Your task to perform on an android device: Open sound settings Image 0: 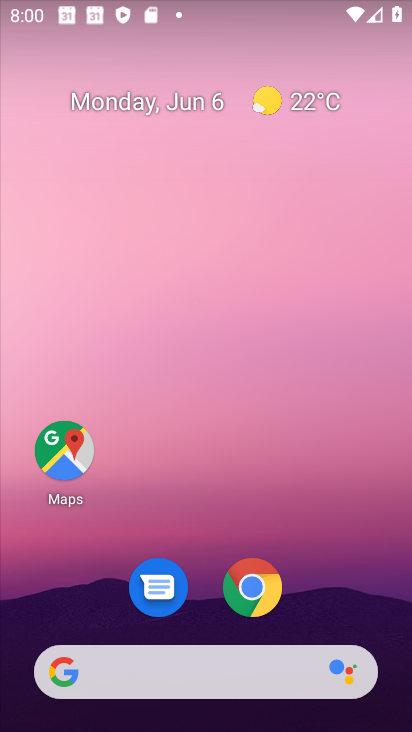
Step 0: click (258, 594)
Your task to perform on an android device: Open sound settings Image 1: 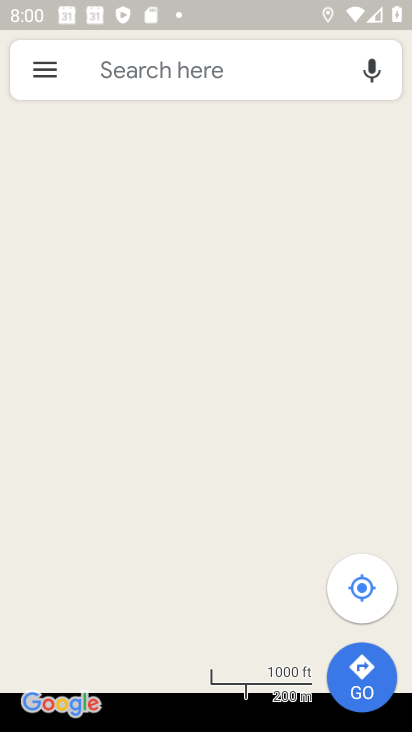
Step 1: press home button
Your task to perform on an android device: Open sound settings Image 2: 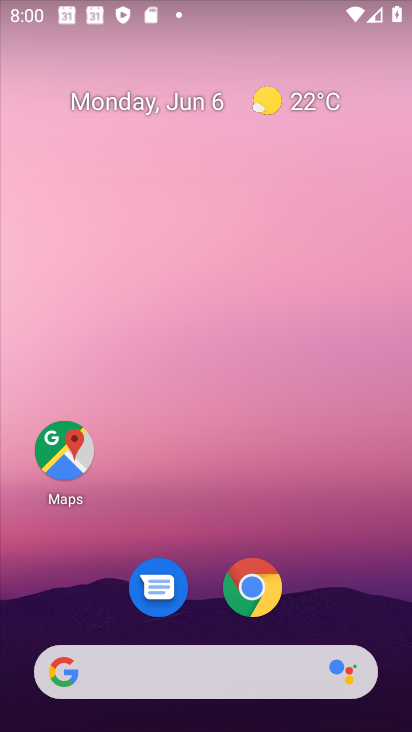
Step 2: drag from (244, 644) to (212, 325)
Your task to perform on an android device: Open sound settings Image 3: 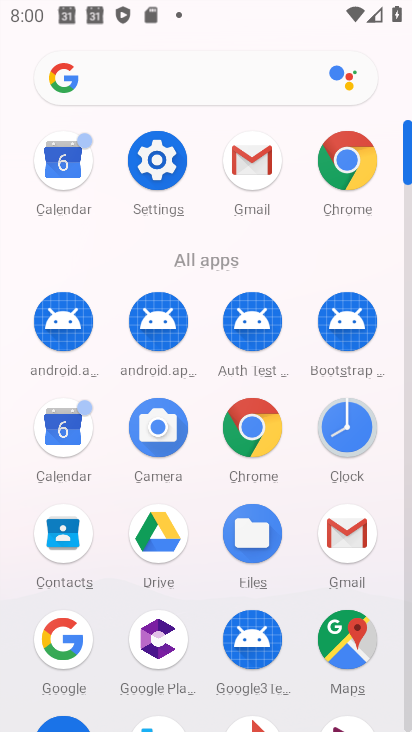
Step 3: click (162, 158)
Your task to perform on an android device: Open sound settings Image 4: 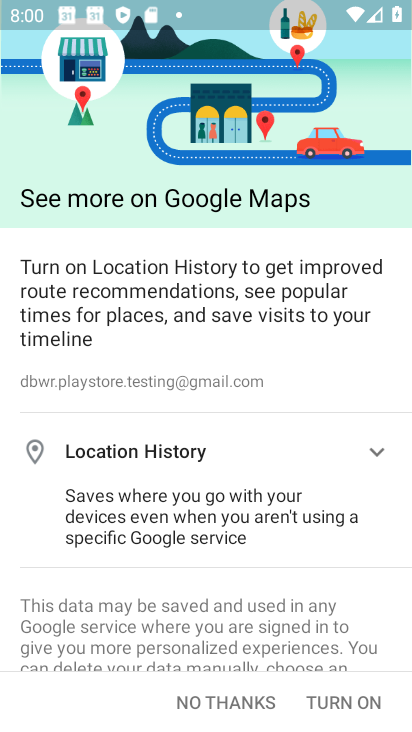
Step 4: press home button
Your task to perform on an android device: Open sound settings Image 5: 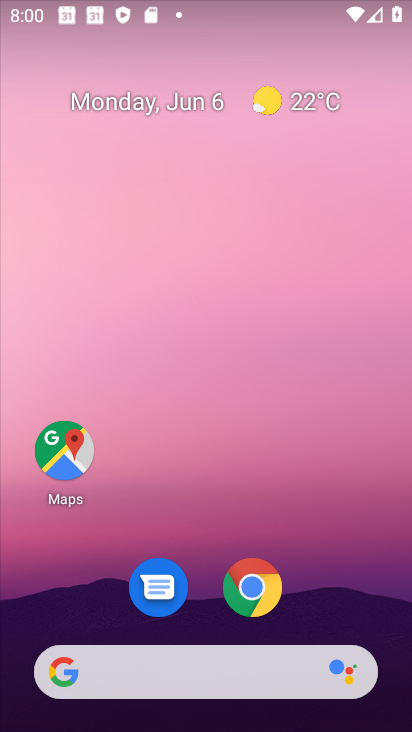
Step 5: drag from (178, 549) to (189, 250)
Your task to perform on an android device: Open sound settings Image 6: 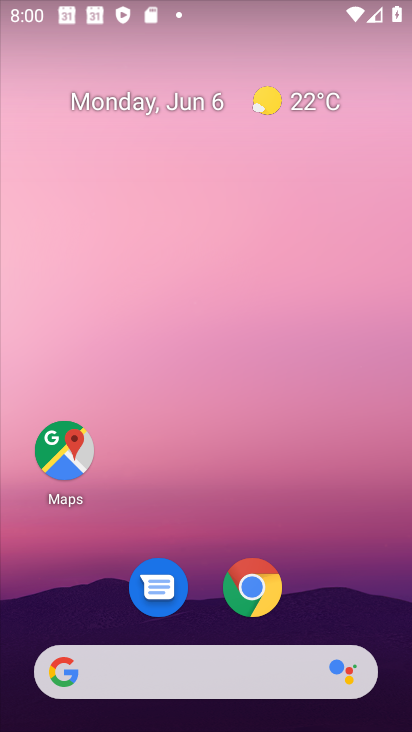
Step 6: drag from (236, 625) to (244, 181)
Your task to perform on an android device: Open sound settings Image 7: 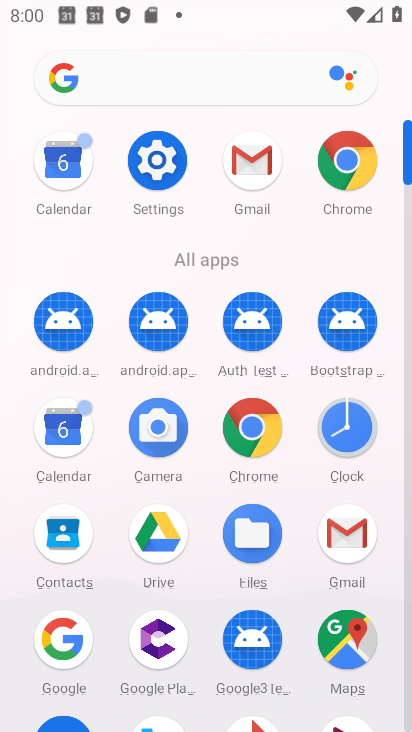
Step 7: click (153, 177)
Your task to perform on an android device: Open sound settings Image 8: 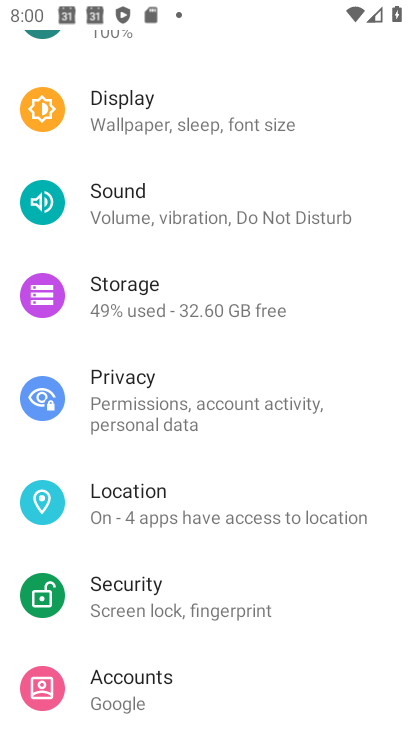
Step 8: click (149, 202)
Your task to perform on an android device: Open sound settings Image 9: 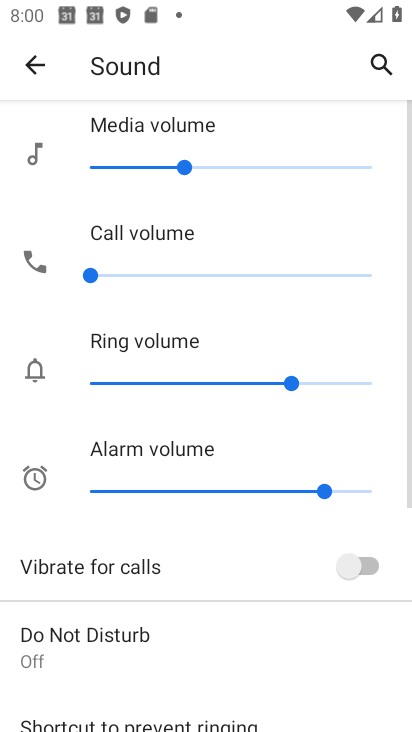
Step 9: task complete